Your task to perform on an android device: turn off location history Image 0: 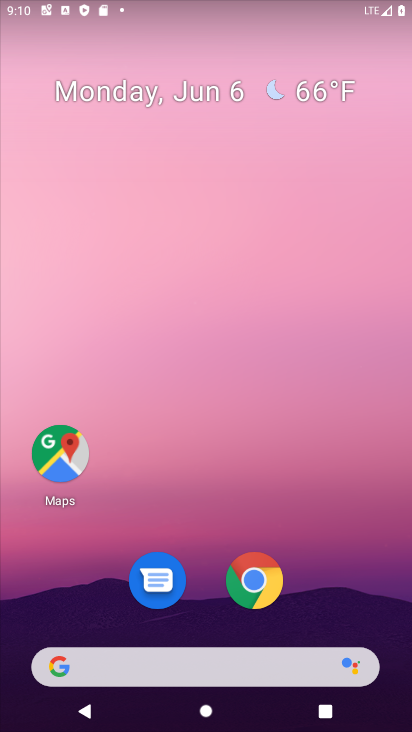
Step 0: drag from (353, 588) to (300, 0)
Your task to perform on an android device: turn off location history Image 1: 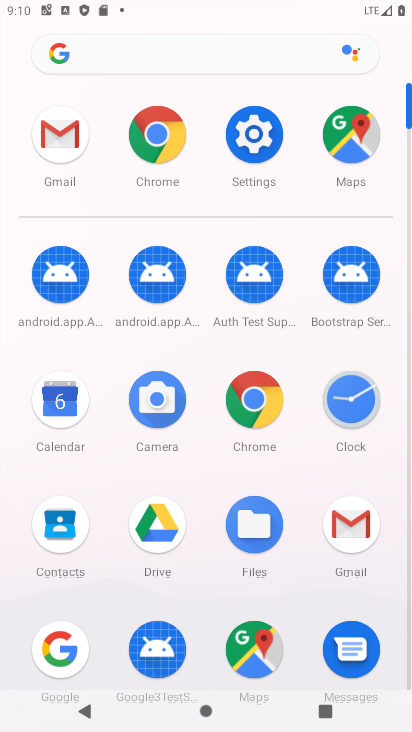
Step 1: click (255, 151)
Your task to perform on an android device: turn off location history Image 2: 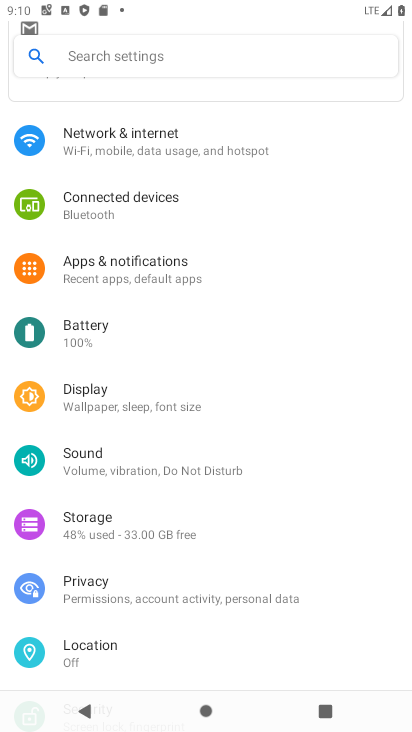
Step 2: click (96, 652)
Your task to perform on an android device: turn off location history Image 3: 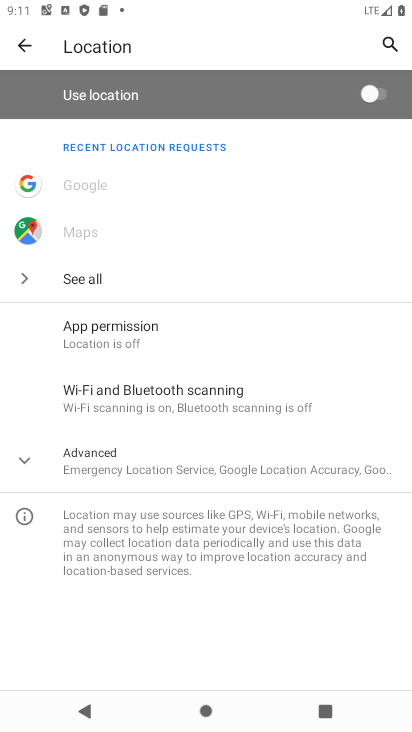
Step 3: click (138, 449)
Your task to perform on an android device: turn off location history Image 4: 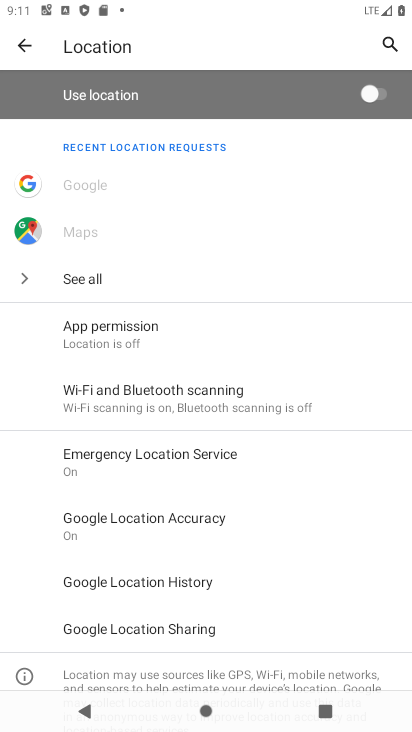
Step 4: drag from (197, 591) to (248, 172)
Your task to perform on an android device: turn off location history Image 5: 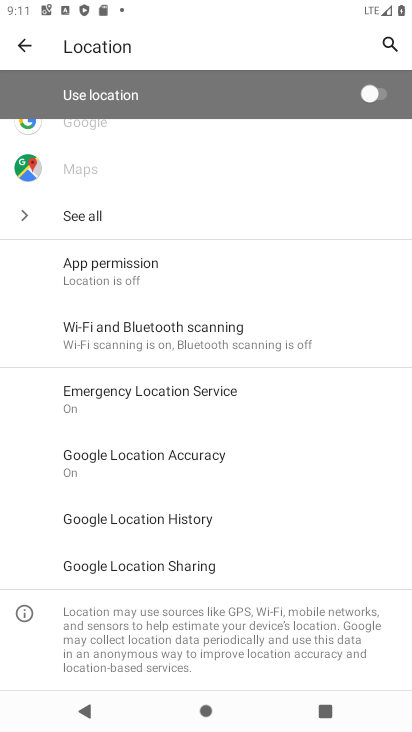
Step 5: click (157, 519)
Your task to perform on an android device: turn off location history Image 6: 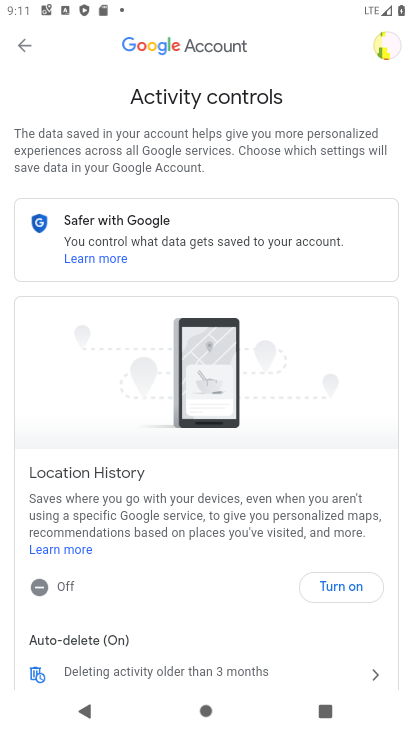
Step 6: task complete